Your task to perform on an android device: Is it going to rain this weekend? Image 0: 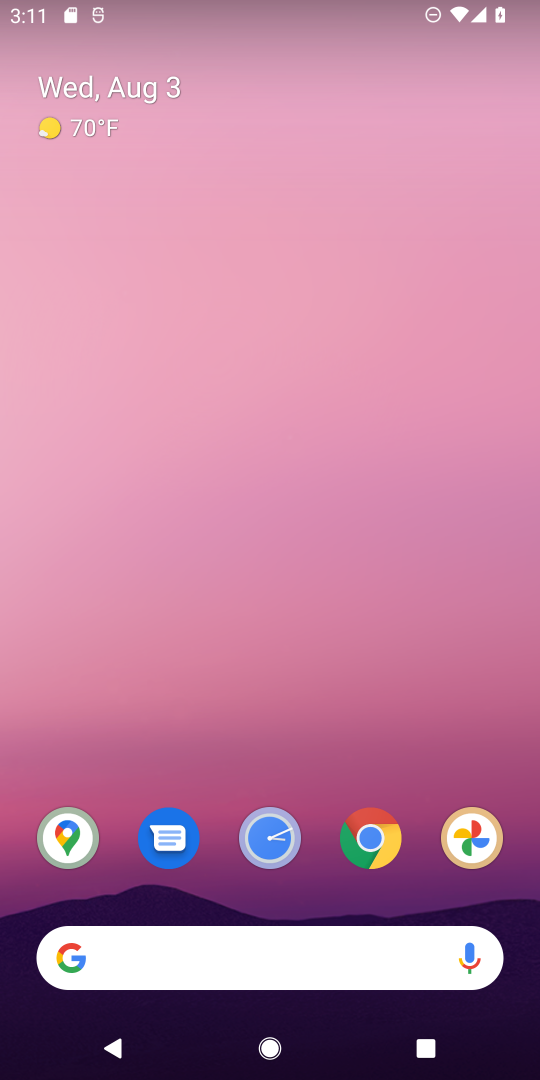
Step 0: click (265, 949)
Your task to perform on an android device: Is it going to rain this weekend? Image 1: 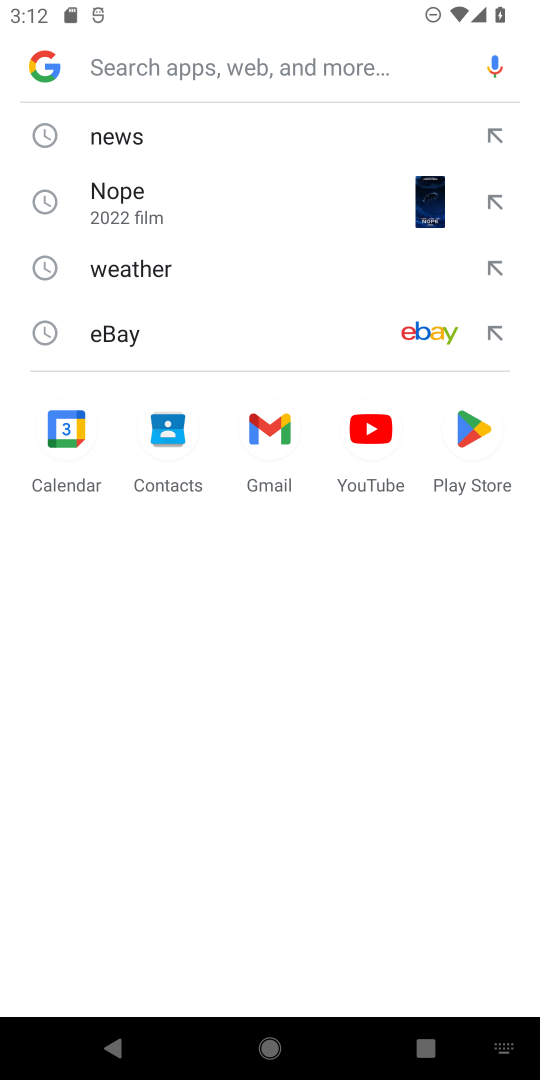
Step 1: type "is it going to rain this weekend"
Your task to perform on an android device: Is it going to rain this weekend? Image 2: 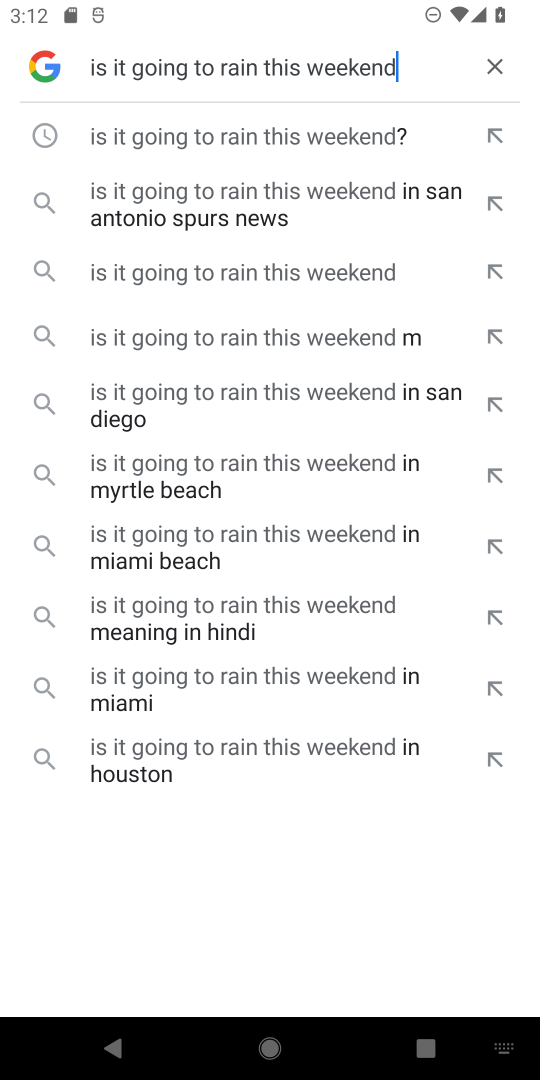
Step 2: click (177, 131)
Your task to perform on an android device: Is it going to rain this weekend? Image 3: 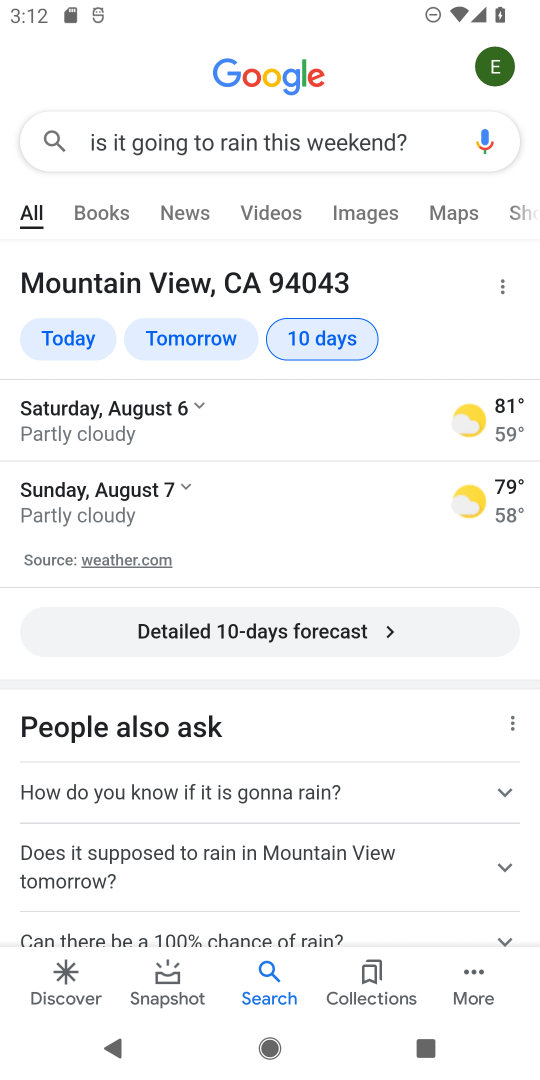
Step 3: task complete